Your task to perform on an android device: Go to battery settings Image 0: 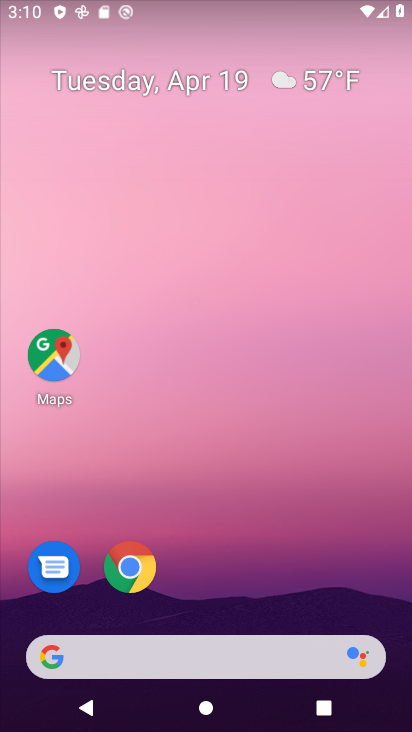
Step 0: drag from (363, 604) to (363, 73)
Your task to perform on an android device: Go to battery settings Image 1: 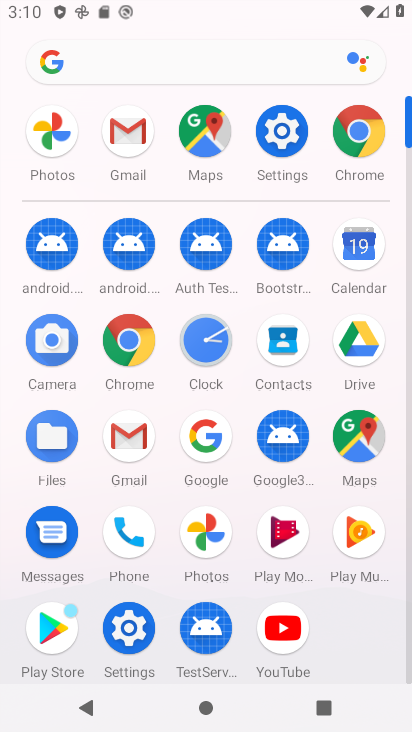
Step 1: click (297, 123)
Your task to perform on an android device: Go to battery settings Image 2: 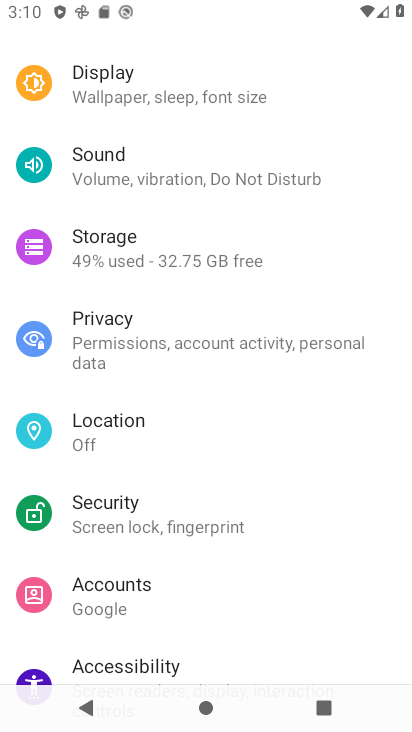
Step 2: drag from (370, 595) to (365, 409)
Your task to perform on an android device: Go to battery settings Image 3: 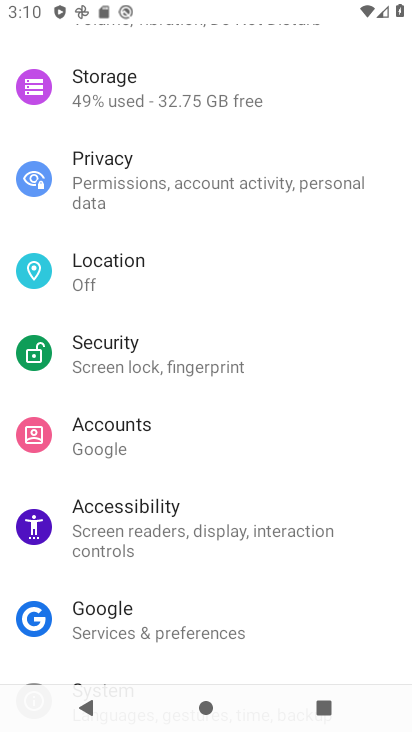
Step 3: drag from (337, 592) to (371, 385)
Your task to perform on an android device: Go to battery settings Image 4: 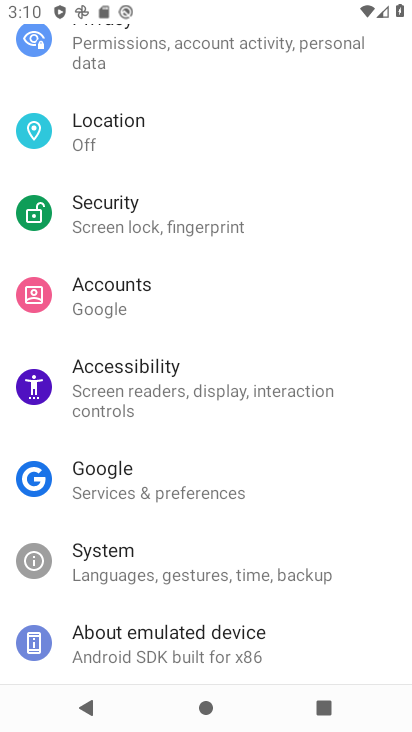
Step 4: drag from (369, 352) to (372, 509)
Your task to perform on an android device: Go to battery settings Image 5: 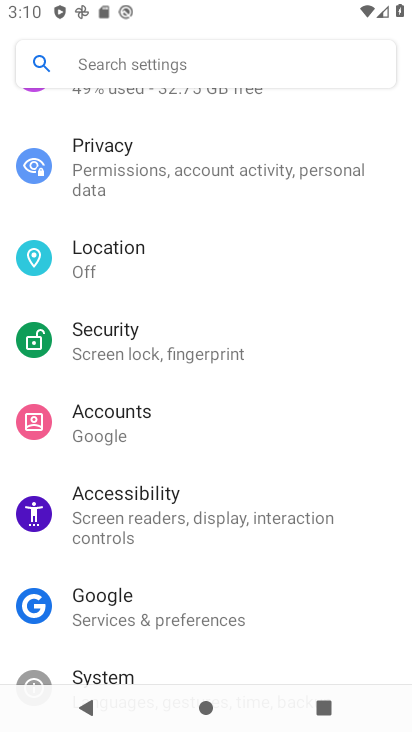
Step 5: drag from (370, 343) to (362, 554)
Your task to perform on an android device: Go to battery settings Image 6: 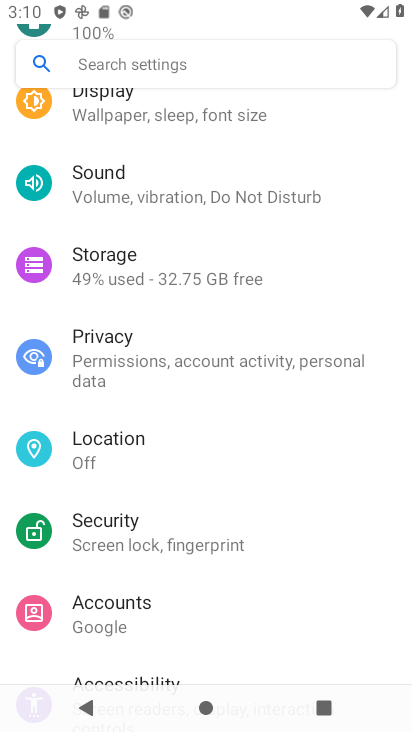
Step 6: drag from (372, 312) to (365, 497)
Your task to perform on an android device: Go to battery settings Image 7: 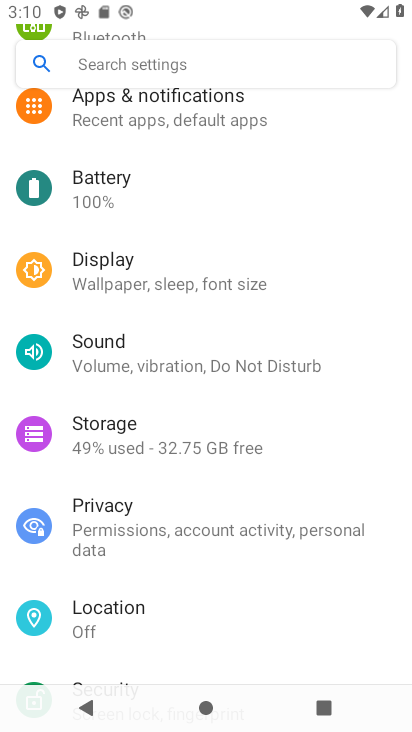
Step 7: drag from (375, 285) to (371, 488)
Your task to perform on an android device: Go to battery settings Image 8: 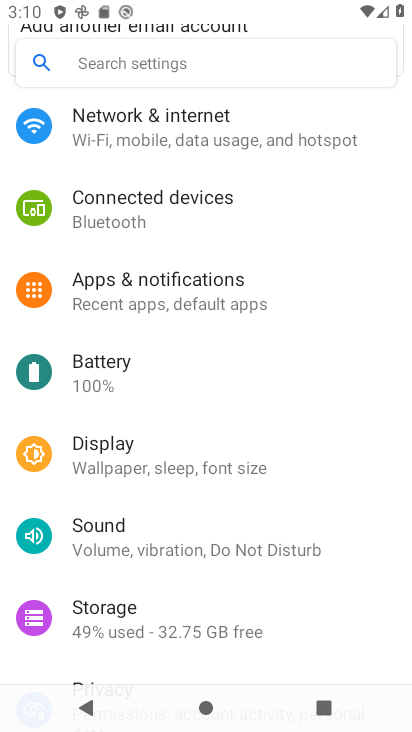
Step 8: drag from (381, 271) to (365, 470)
Your task to perform on an android device: Go to battery settings Image 9: 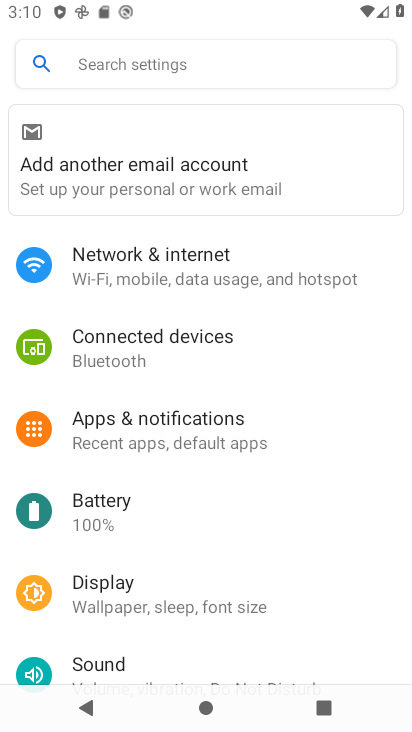
Step 9: click (131, 505)
Your task to perform on an android device: Go to battery settings Image 10: 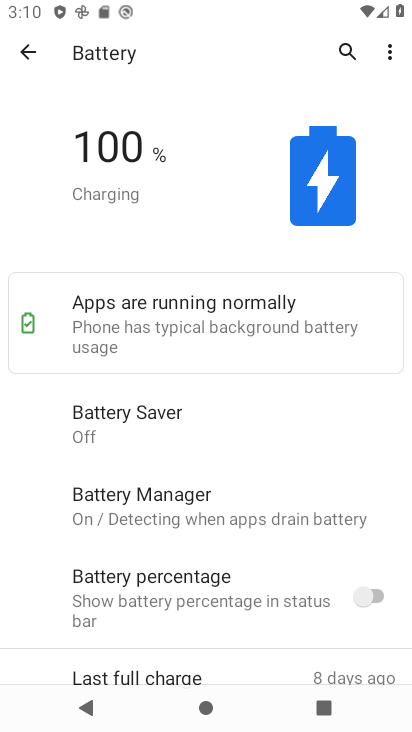
Step 10: task complete